Your task to perform on an android device: add a contact Image 0: 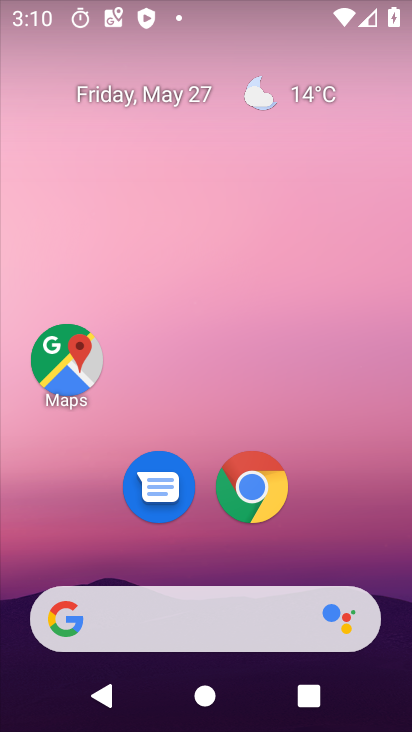
Step 0: drag from (335, 524) to (334, 52)
Your task to perform on an android device: add a contact Image 1: 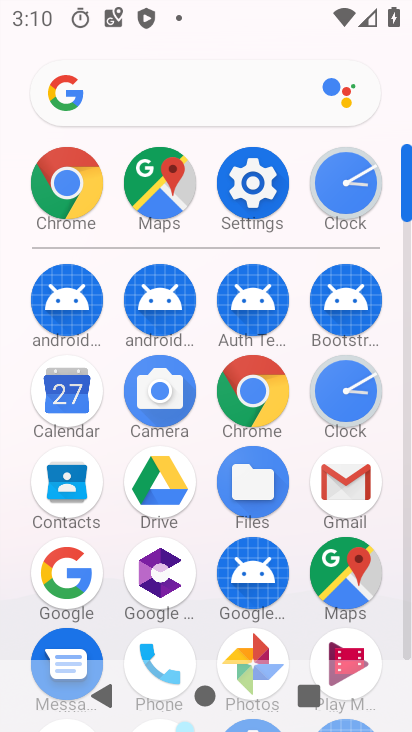
Step 1: click (73, 498)
Your task to perform on an android device: add a contact Image 2: 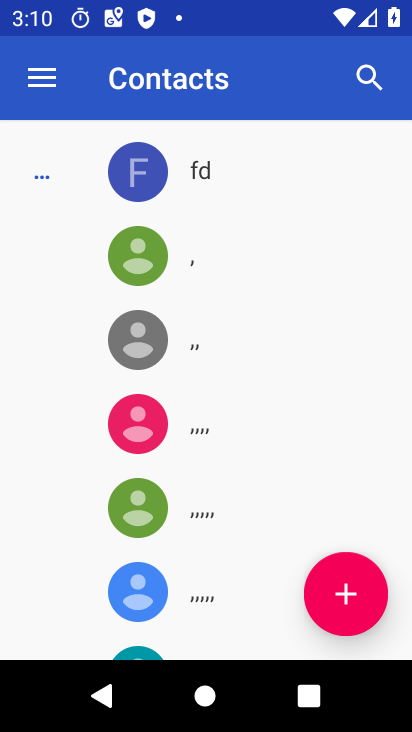
Step 2: click (357, 583)
Your task to perform on an android device: add a contact Image 3: 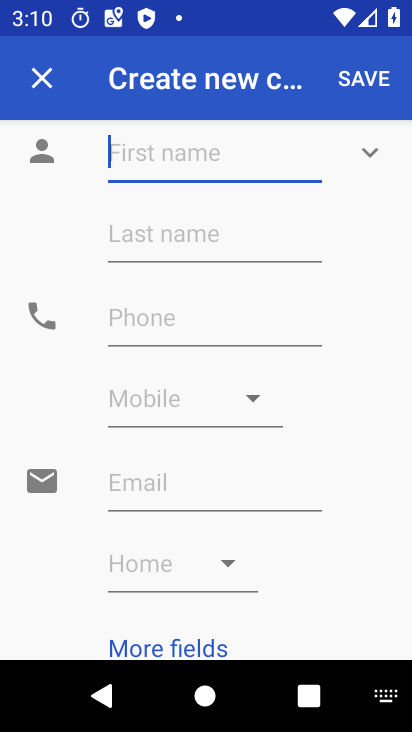
Step 3: type "metal"
Your task to perform on an android device: add a contact Image 4: 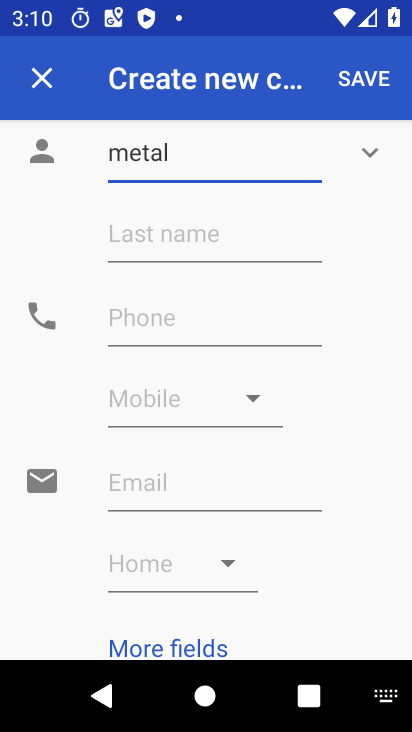
Step 4: click (383, 80)
Your task to perform on an android device: add a contact Image 5: 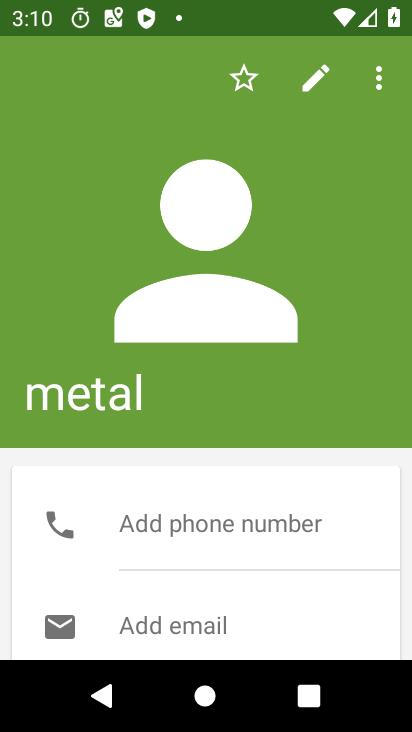
Step 5: task complete